Your task to perform on an android device: Open battery settings Image 0: 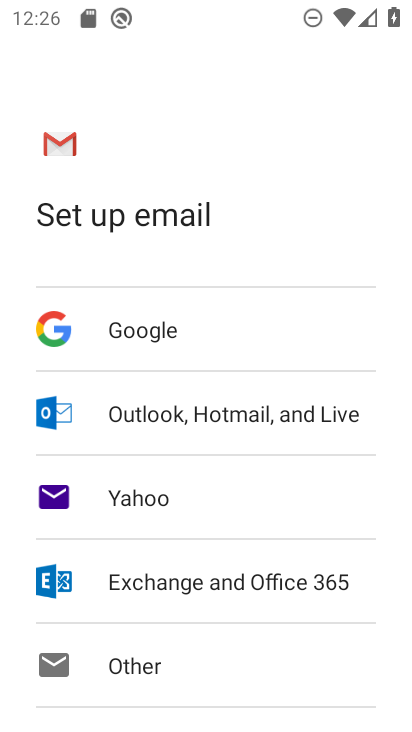
Step 0: press home button
Your task to perform on an android device: Open battery settings Image 1: 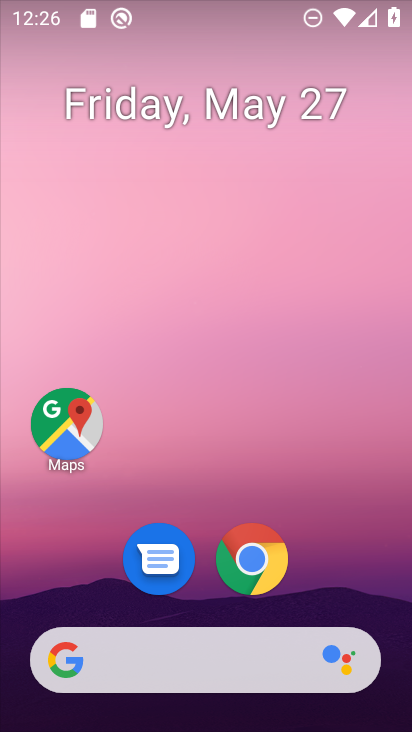
Step 1: drag from (350, 572) to (312, 188)
Your task to perform on an android device: Open battery settings Image 2: 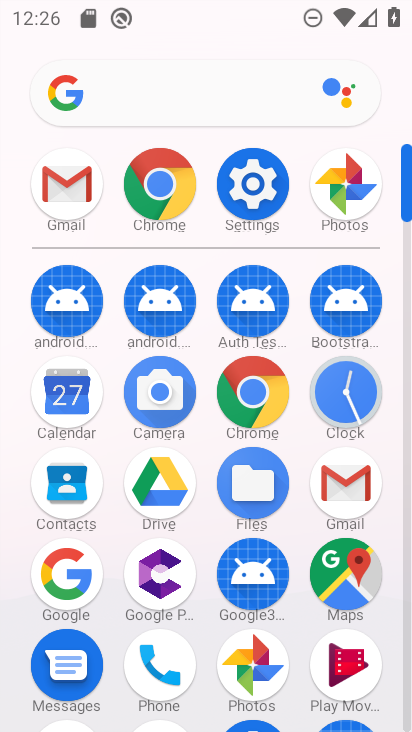
Step 2: click (255, 206)
Your task to perform on an android device: Open battery settings Image 3: 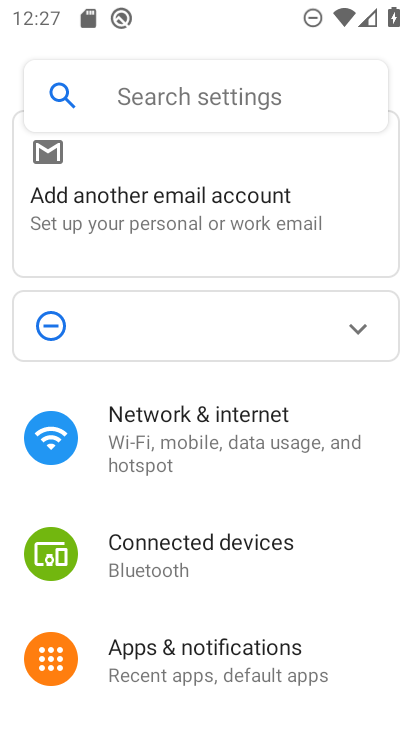
Step 3: drag from (219, 710) to (238, 474)
Your task to perform on an android device: Open battery settings Image 4: 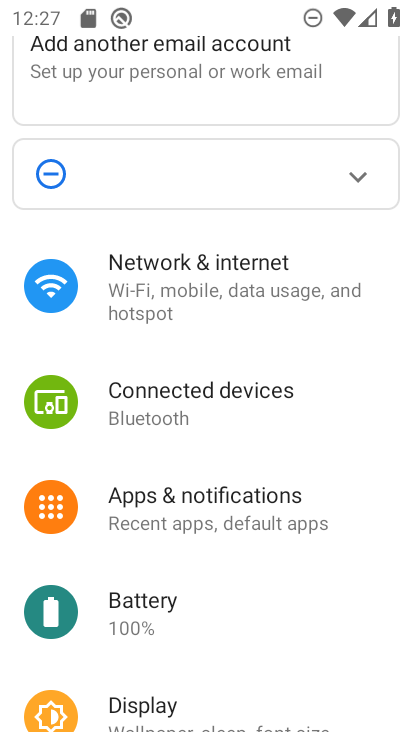
Step 4: click (119, 608)
Your task to perform on an android device: Open battery settings Image 5: 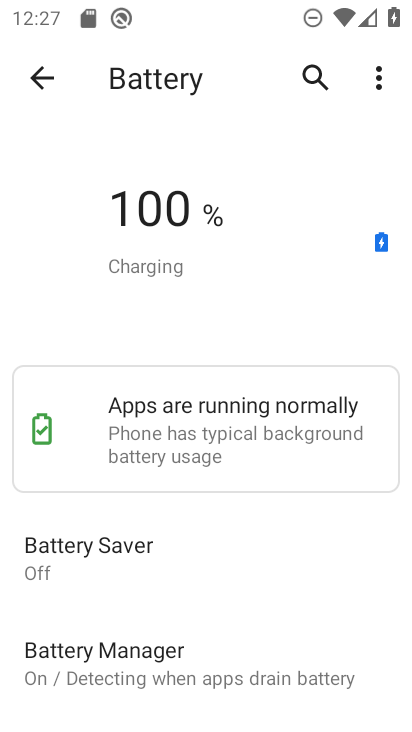
Step 5: task complete